Your task to perform on an android device: open the mobile data screen to see how much data has been used Image 0: 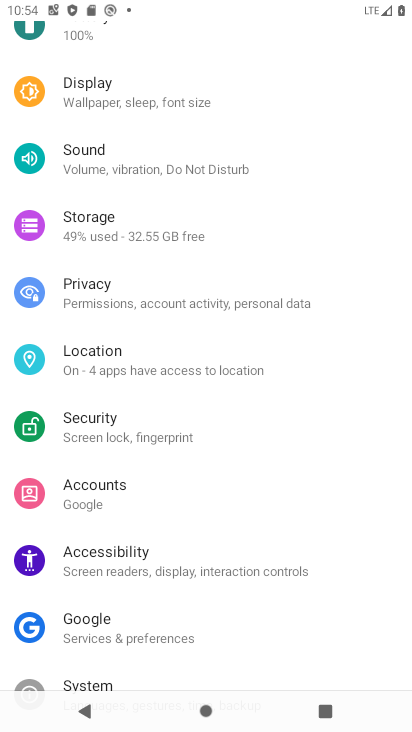
Step 0: drag from (135, 197) to (167, 553)
Your task to perform on an android device: open the mobile data screen to see how much data has been used Image 1: 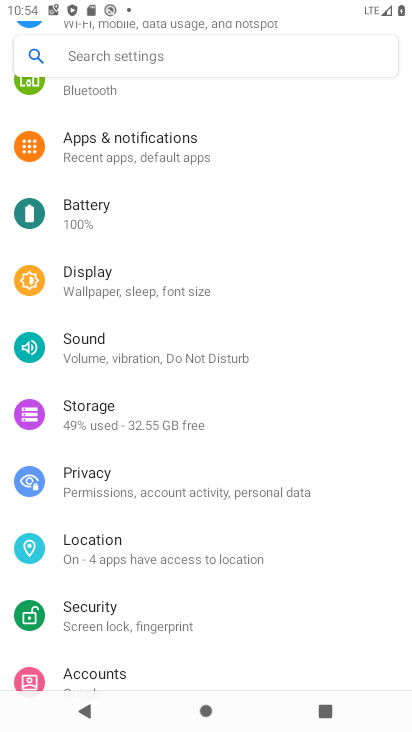
Step 1: drag from (159, 147) to (211, 498)
Your task to perform on an android device: open the mobile data screen to see how much data has been used Image 2: 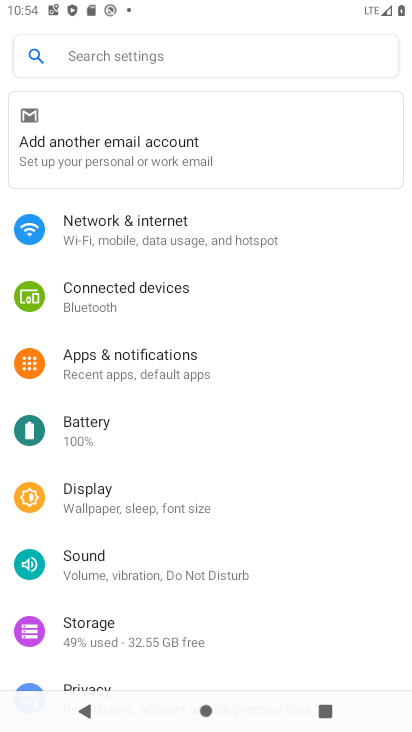
Step 2: click (151, 240)
Your task to perform on an android device: open the mobile data screen to see how much data has been used Image 3: 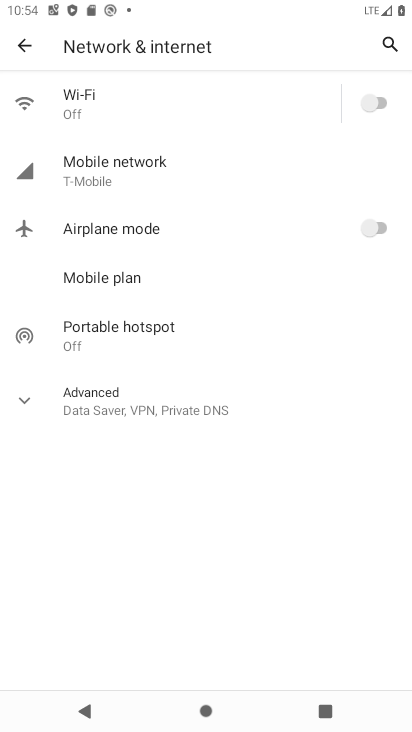
Step 3: click (197, 170)
Your task to perform on an android device: open the mobile data screen to see how much data has been used Image 4: 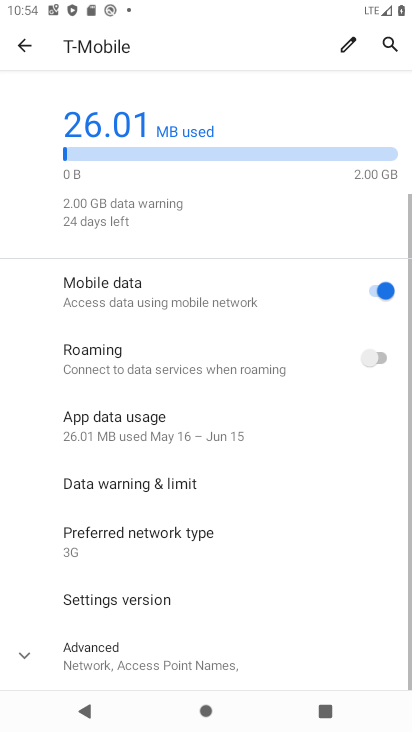
Step 4: task complete